Your task to perform on an android device: toggle pop-ups in chrome Image 0: 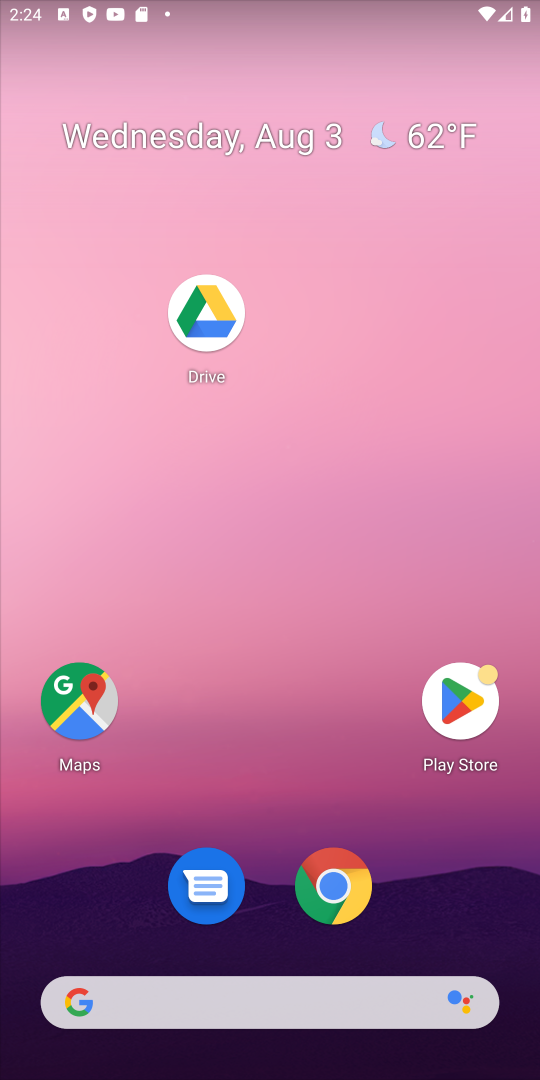
Step 0: drag from (357, 838) to (274, 6)
Your task to perform on an android device: toggle pop-ups in chrome Image 1: 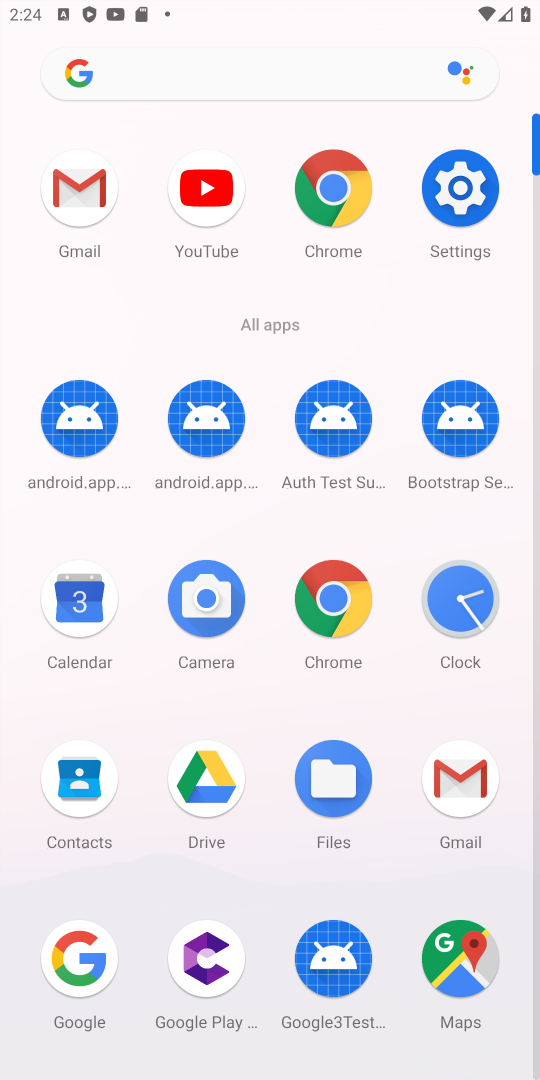
Step 1: click (328, 599)
Your task to perform on an android device: toggle pop-ups in chrome Image 2: 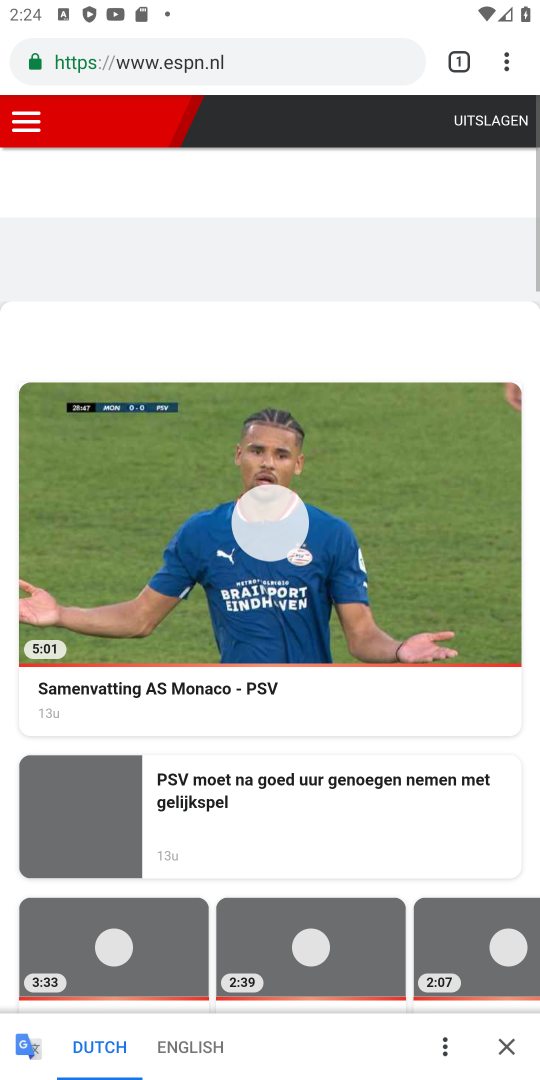
Step 2: drag from (508, 56) to (330, 734)
Your task to perform on an android device: toggle pop-ups in chrome Image 3: 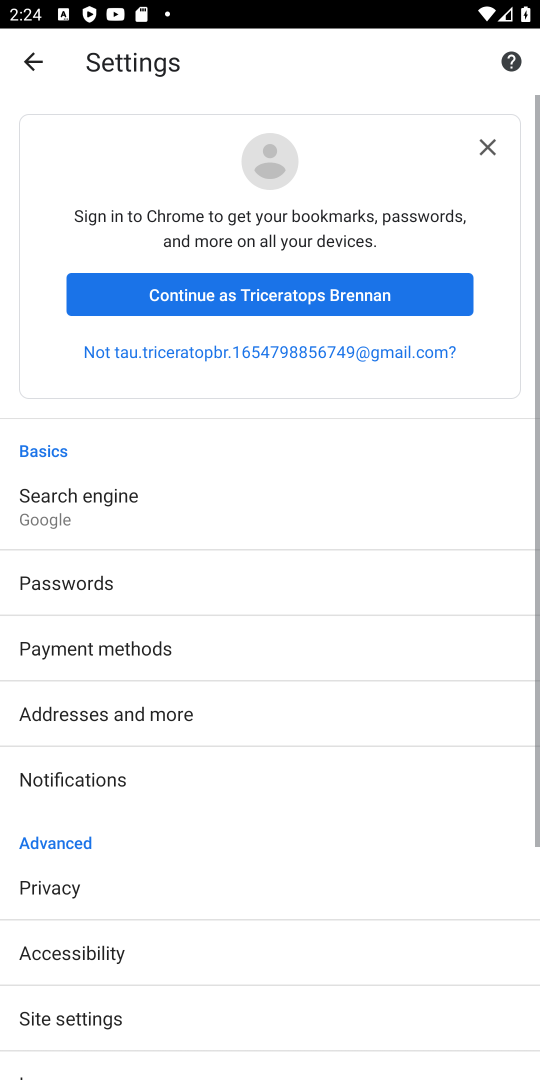
Step 3: drag from (168, 934) to (126, 494)
Your task to perform on an android device: toggle pop-ups in chrome Image 4: 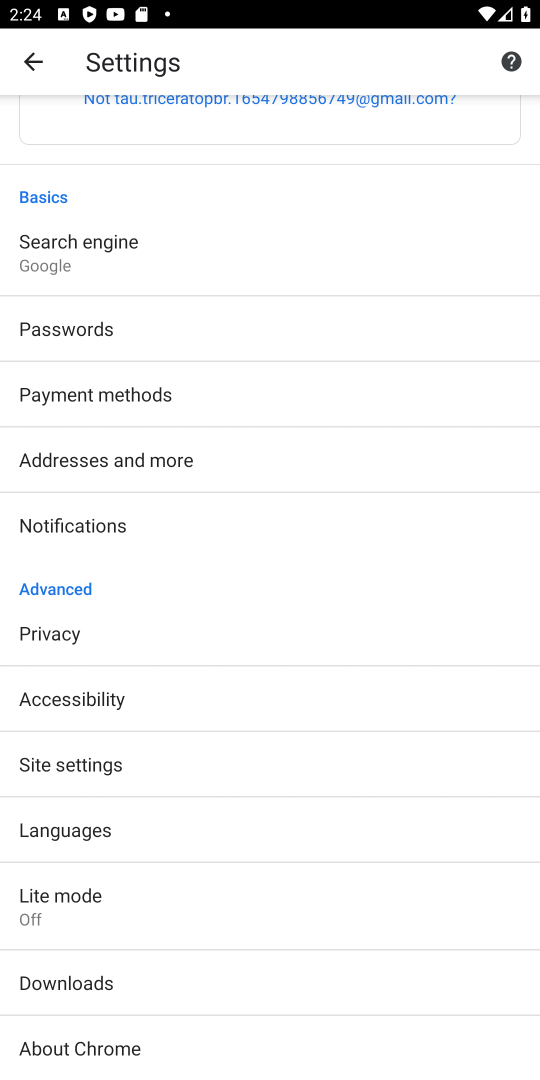
Step 4: click (95, 760)
Your task to perform on an android device: toggle pop-ups in chrome Image 5: 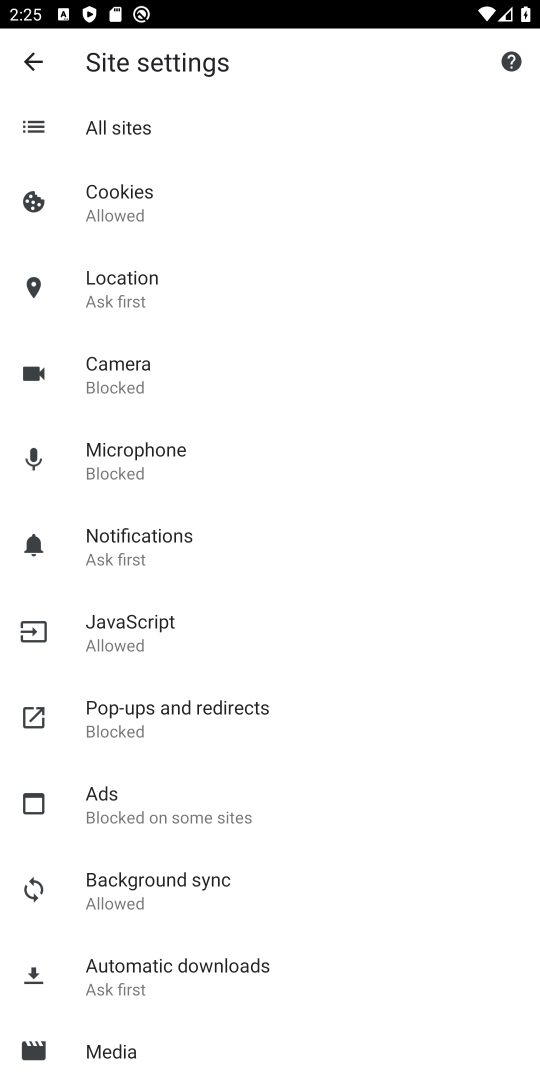
Step 5: click (256, 716)
Your task to perform on an android device: toggle pop-ups in chrome Image 6: 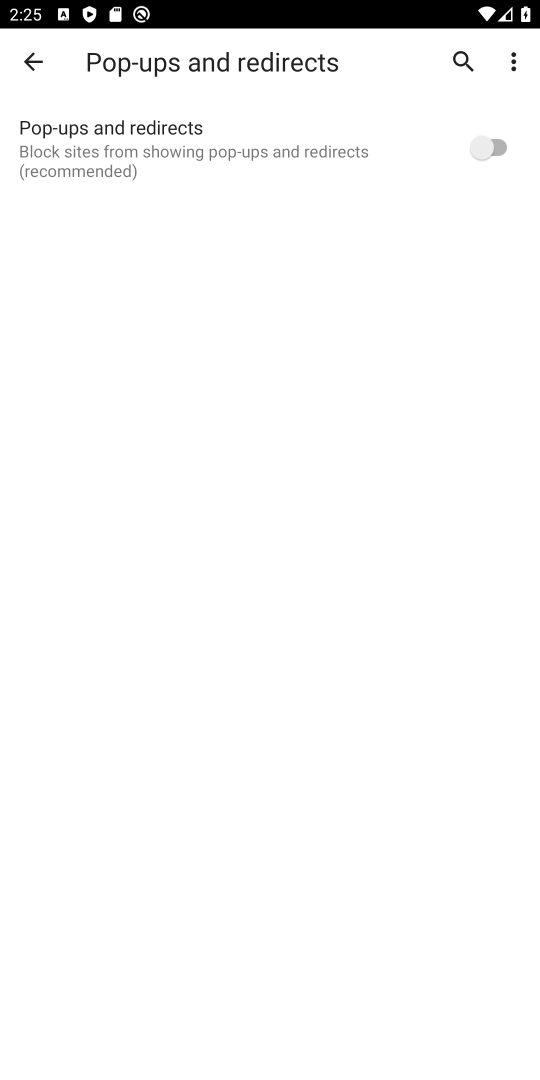
Step 6: click (487, 141)
Your task to perform on an android device: toggle pop-ups in chrome Image 7: 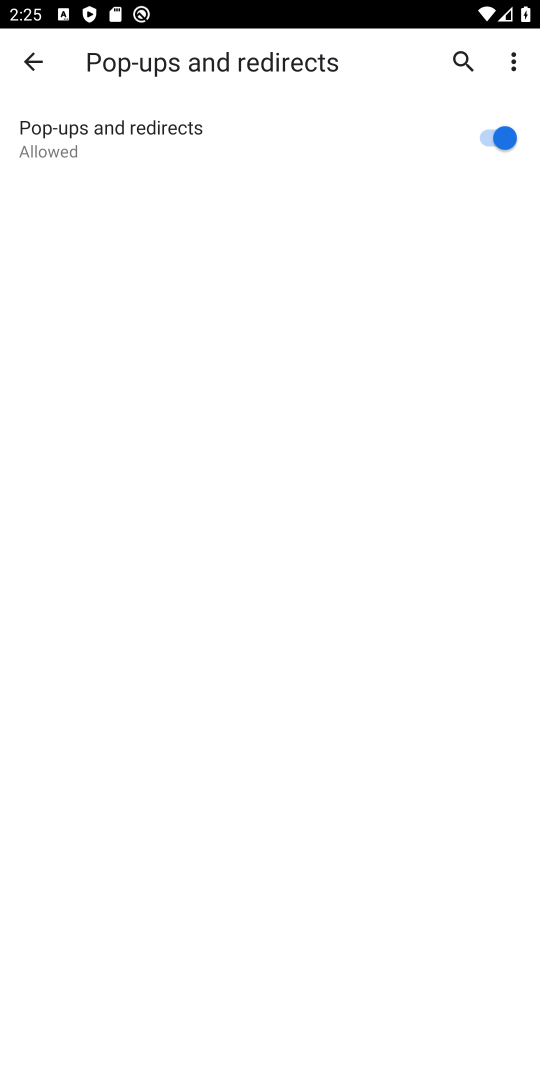
Step 7: task complete